Your task to perform on an android device: What is the recent news? Image 0: 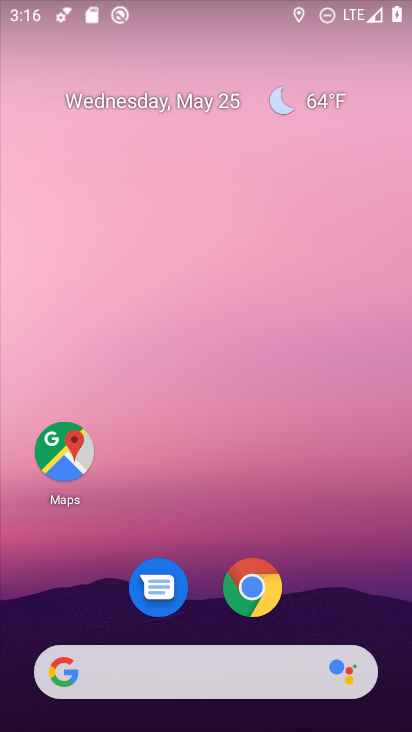
Step 0: click (285, 668)
Your task to perform on an android device: What is the recent news? Image 1: 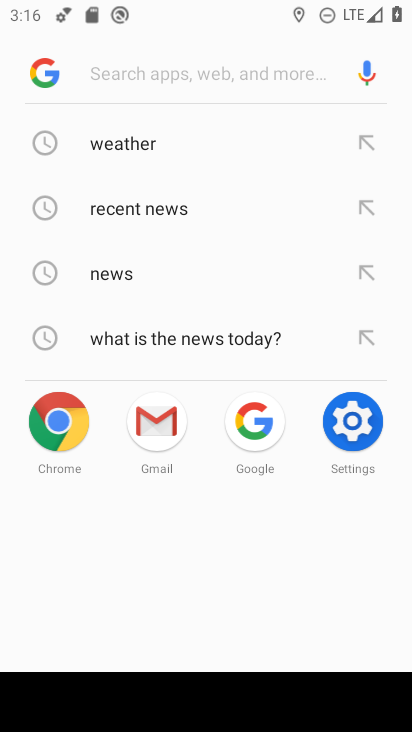
Step 1: click (170, 212)
Your task to perform on an android device: What is the recent news? Image 2: 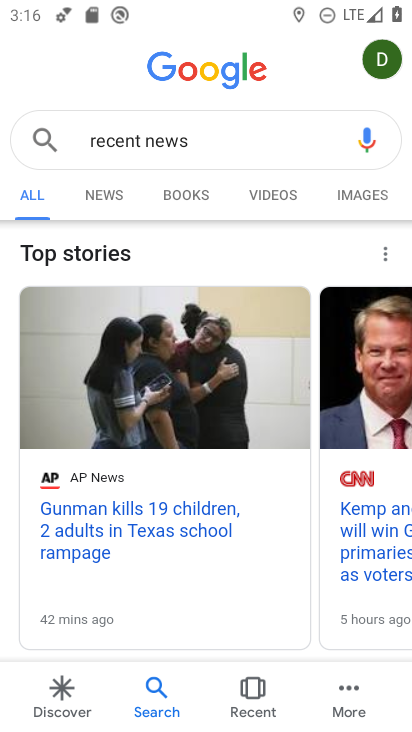
Step 2: task complete